Your task to perform on an android device: Open eBay Image 0: 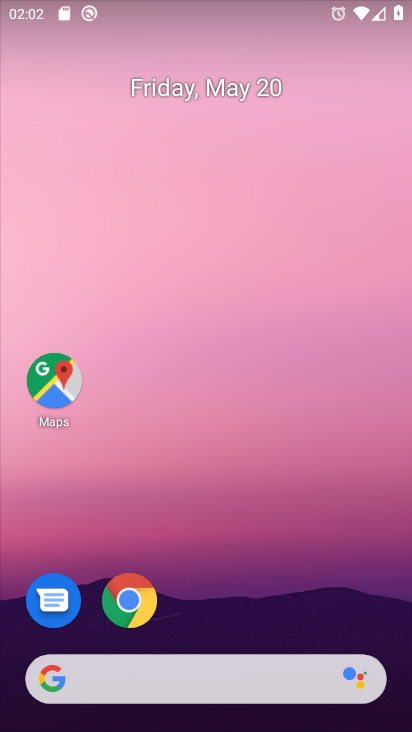
Step 0: click (145, 606)
Your task to perform on an android device: Open eBay Image 1: 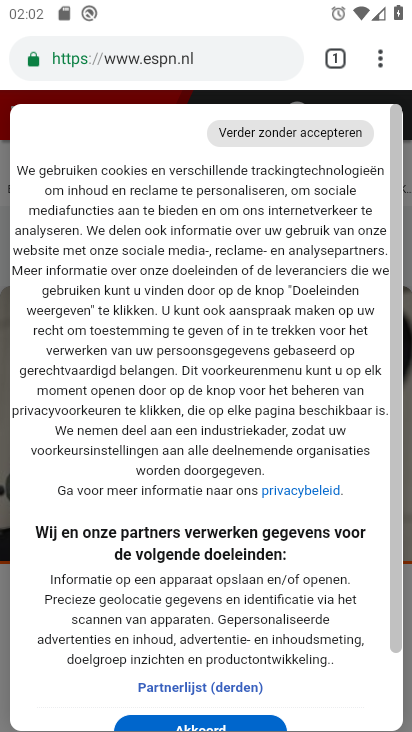
Step 1: click (204, 47)
Your task to perform on an android device: Open eBay Image 2: 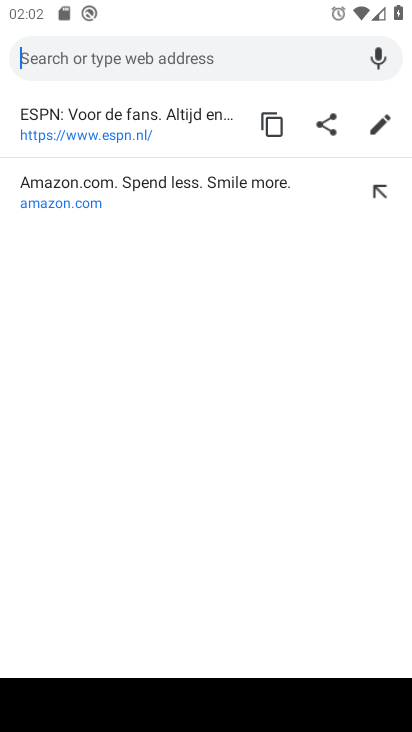
Step 2: type "eBay"
Your task to perform on an android device: Open eBay Image 3: 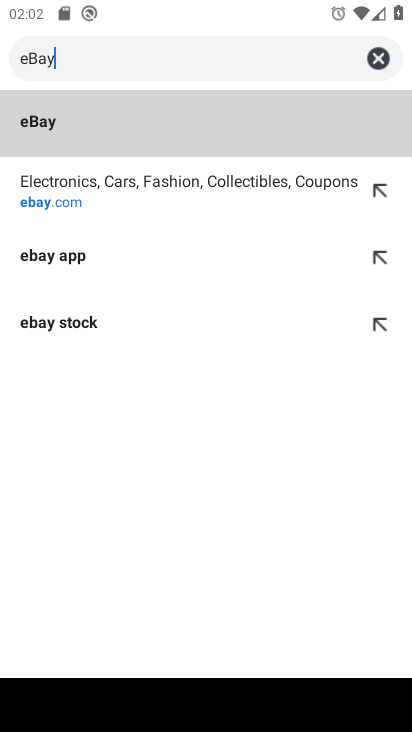
Step 3: click (105, 137)
Your task to perform on an android device: Open eBay Image 4: 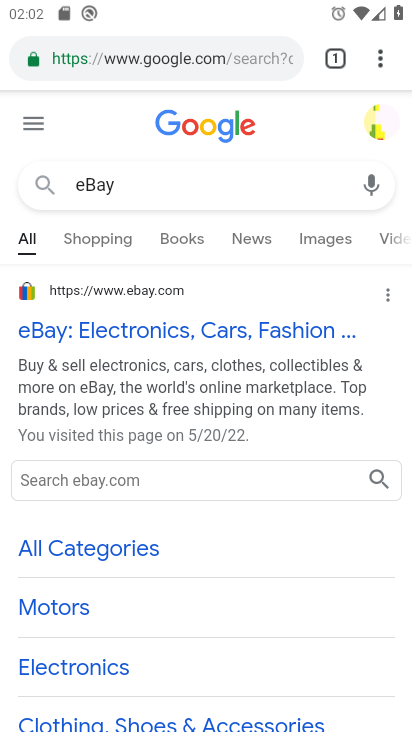
Step 4: task complete